Your task to perform on an android device: turn off data saver in the chrome app Image 0: 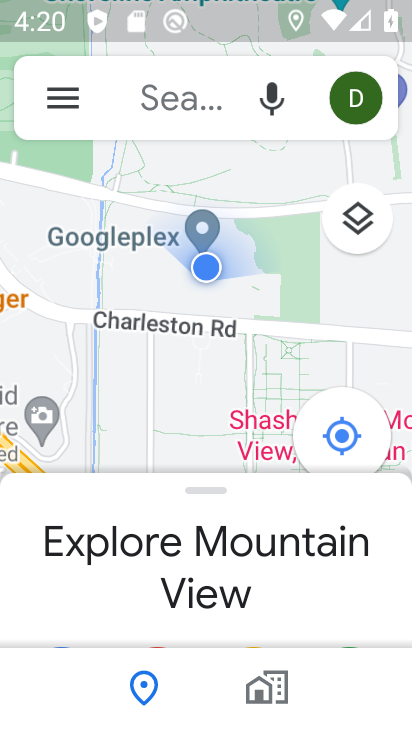
Step 0: press home button
Your task to perform on an android device: turn off data saver in the chrome app Image 1: 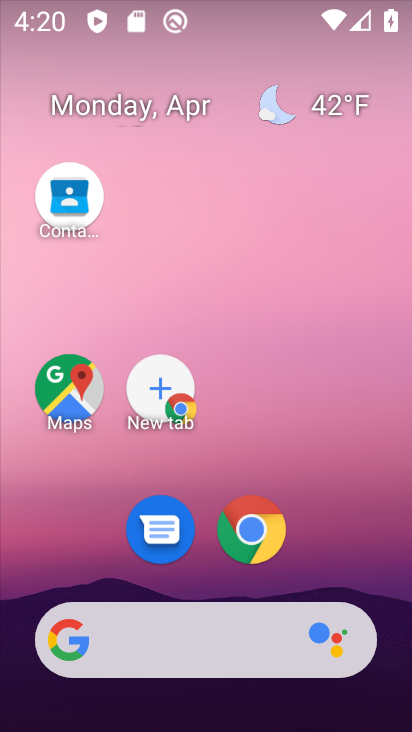
Step 1: click (242, 529)
Your task to perform on an android device: turn off data saver in the chrome app Image 2: 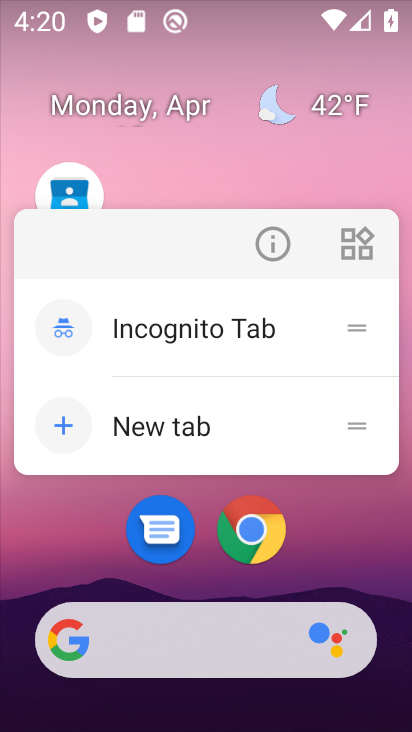
Step 2: click (276, 521)
Your task to perform on an android device: turn off data saver in the chrome app Image 3: 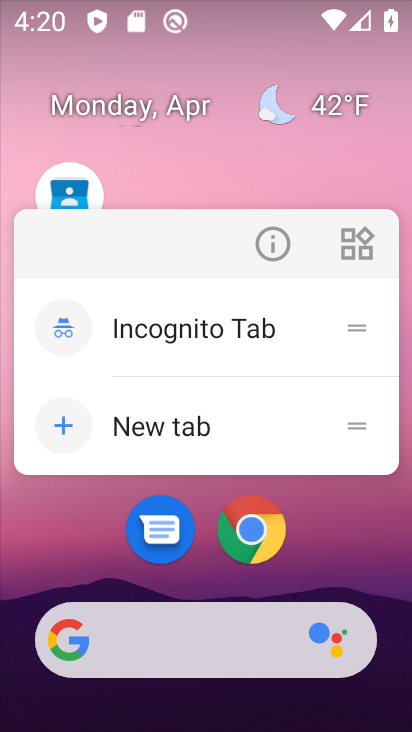
Step 3: click (256, 522)
Your task to perform on an android device: turn off data saver in the chrome app Image 4: 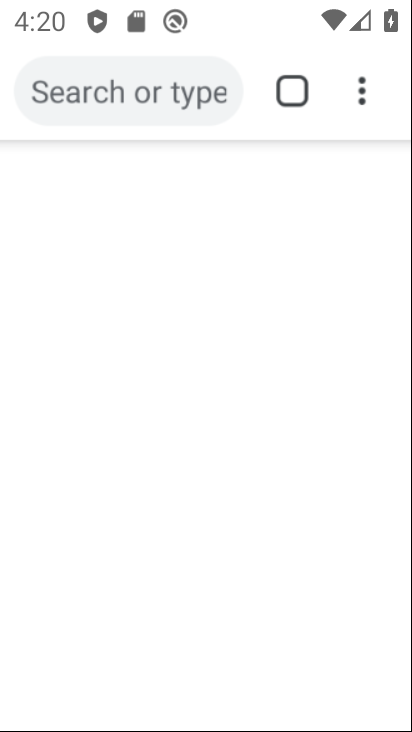
Step 4: click (360, 88)
Your task to perform on an android device: turn off data saver in the chrome app Image 5: 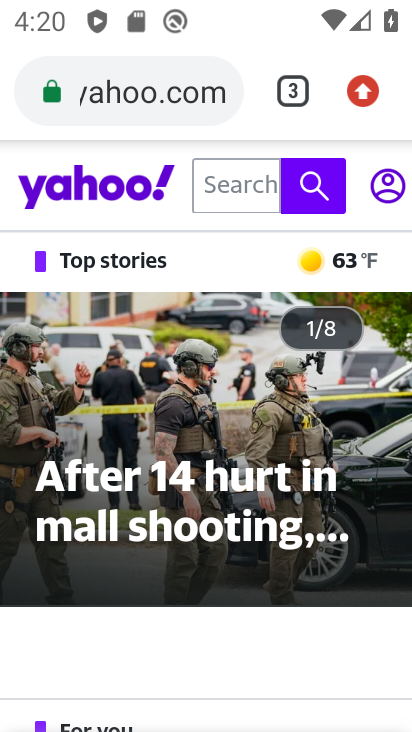
Step 5: click (362, 95)
Your task to perform on an android device: turn off data saver in the chrome app Image 6: 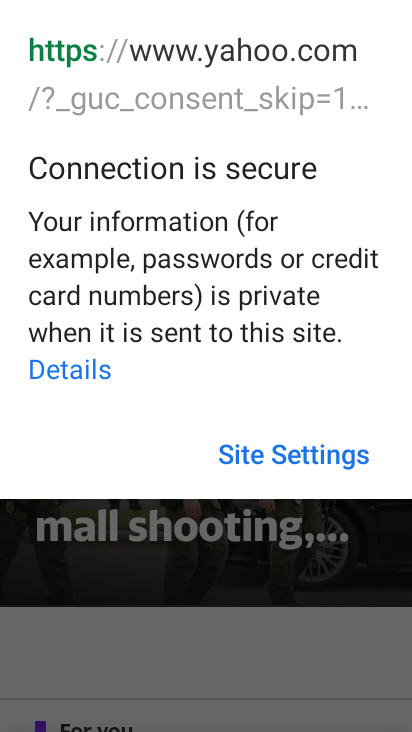
Step 6: drag from (221, 569) to (312, 3)
Your task to perform on an android device: turn off data saver in the chrome app Image 7: 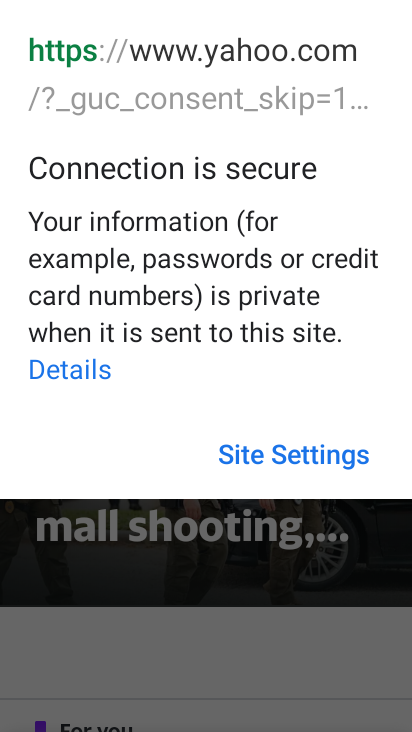
Step 7: click (195, 589)
Your task to perform on an android device: turn off data saver in the chrome app Image 8: 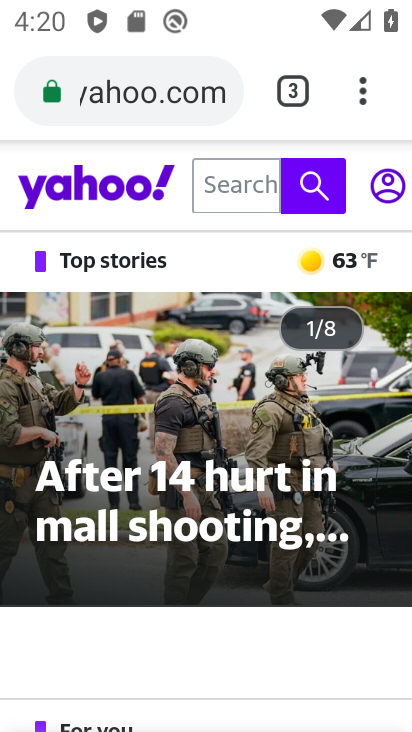
Step 8: drag from (353, 83) to (133, 557)
Your task to perform on an android device: turn off data saver in the chrome app Image 9: 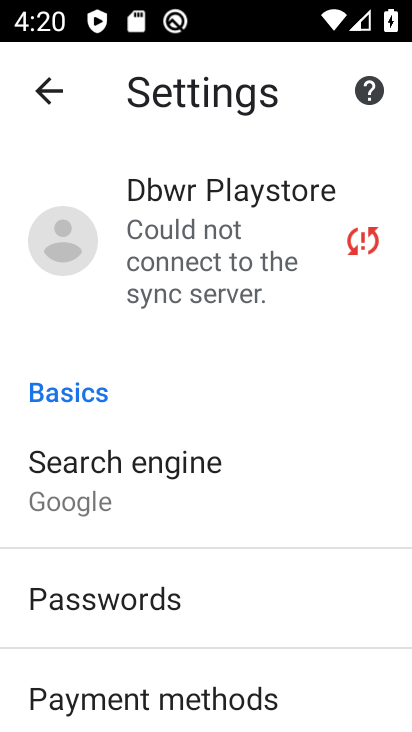
Step 9: drag from (120, 670) to (304, 55)
Your task to perform on an android device: turn off data saver in the chrome app Image 10: 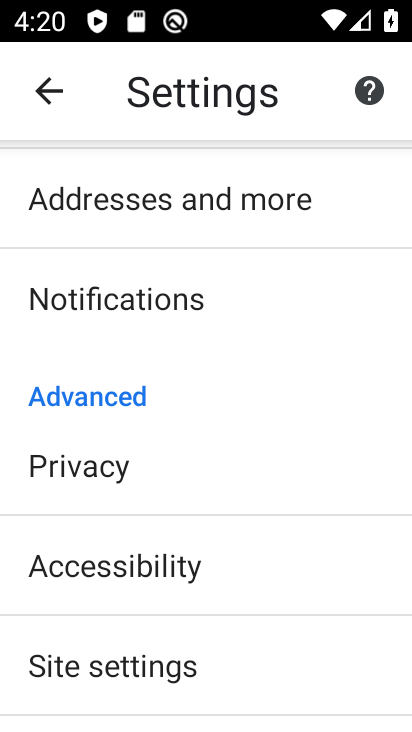
Step 10: drag from (137, 650) to (293, 244)
Your task to perform on an android device: turn off data saver in the chrome app Image 11: 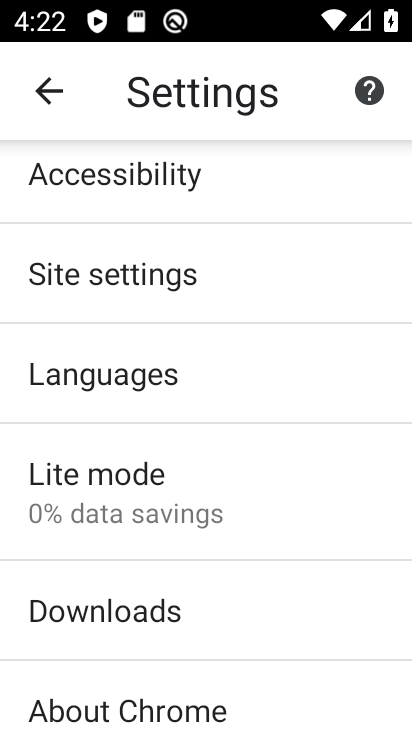
Step 11: click (82, 488)
Your task to perform on an android device: turn off data saver in the chrome app Image 12: 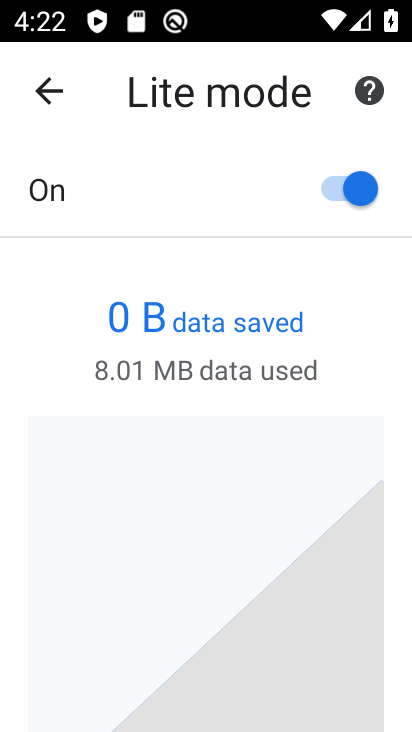
Step 12: click (359, 190)
Your task to perform on an android device: turn off data saver in the chrome app Image 13: 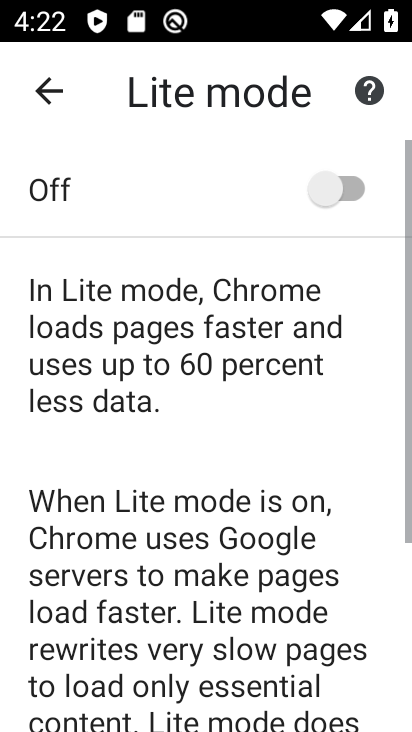
Step 13: task complete